Your task to perform on an android device: What's the news in Thailand? Image 0: 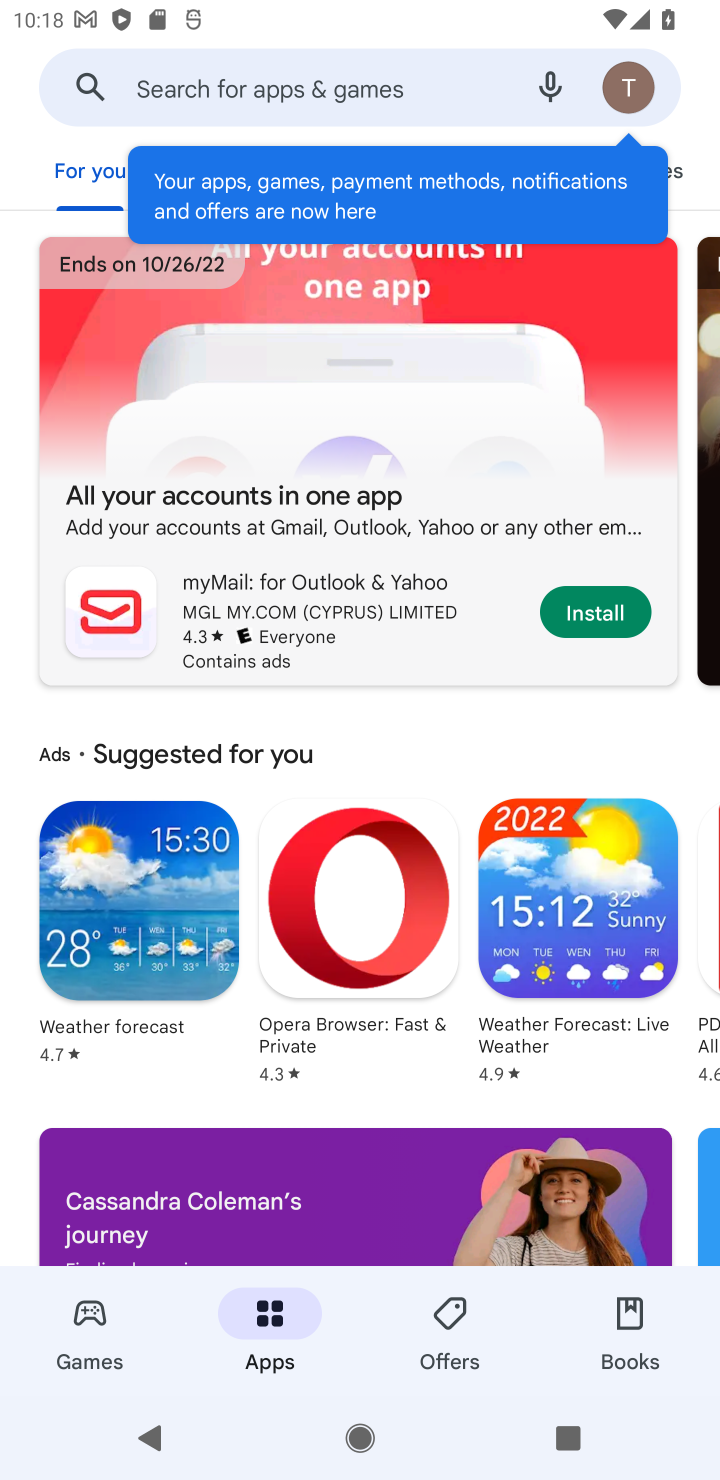
Step 0: press home button
Your task to perform on an android device: What's the news in Thailand? Image 1: 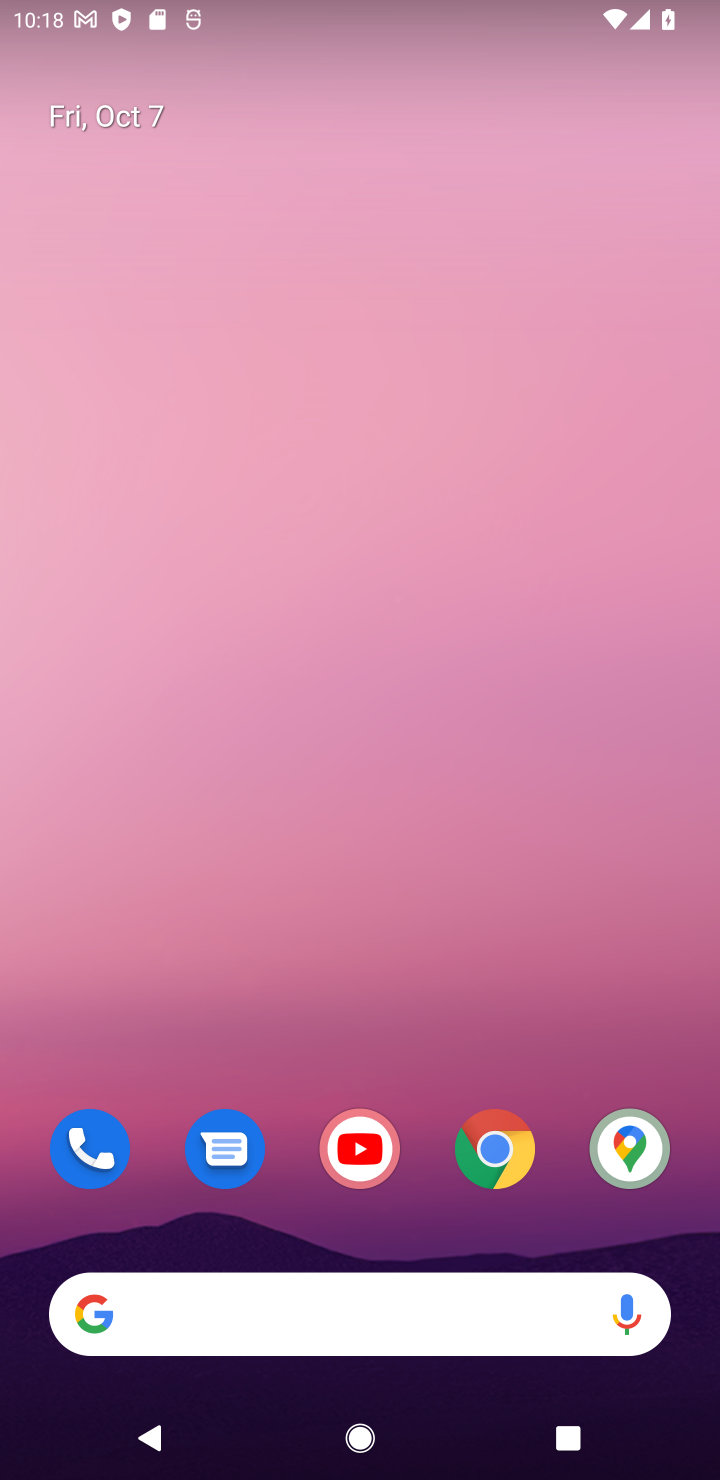
Step 1: click (376, 1330)
Your task to perform on an android device: What's the news in Thailand? Image 2: 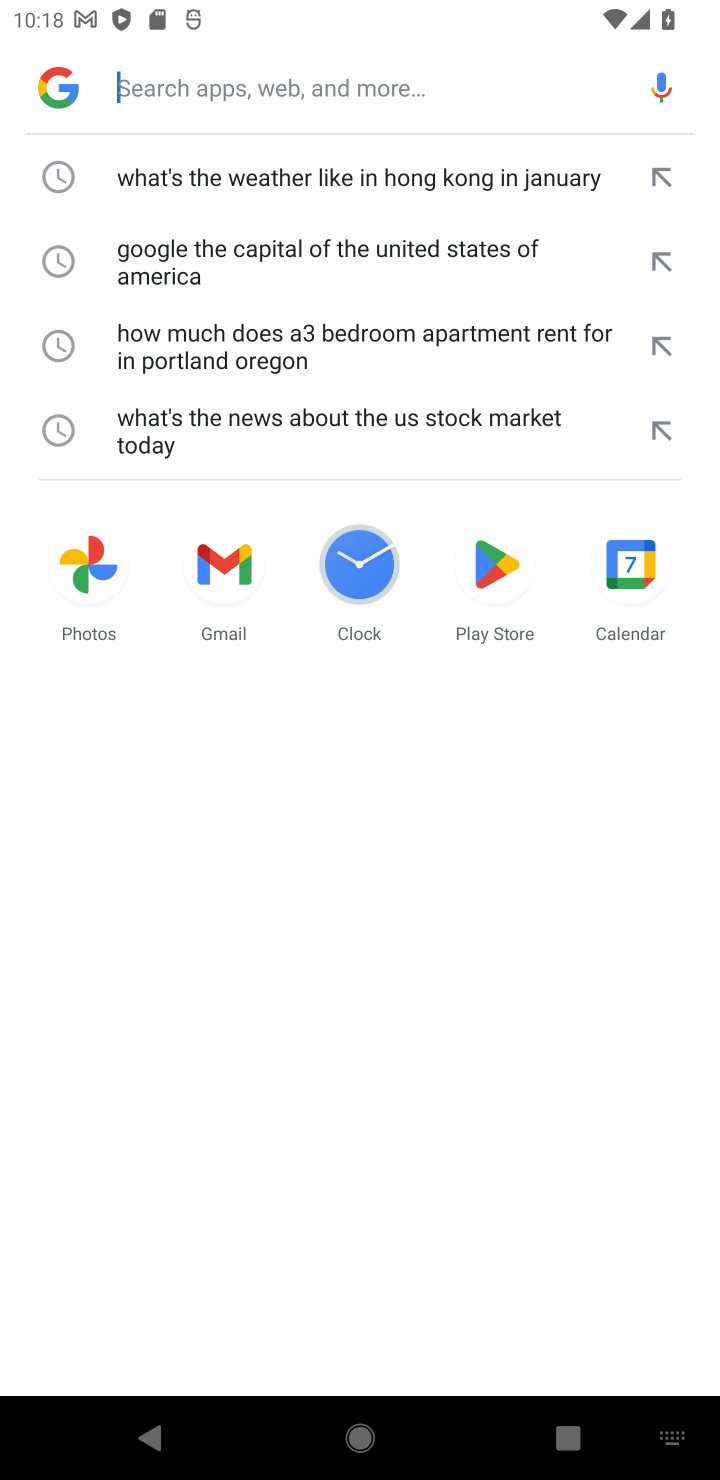
Step 2: type "What's the news in Thailand?"
Your task to perform on an android device: What's the news in Thailand? Image 3: 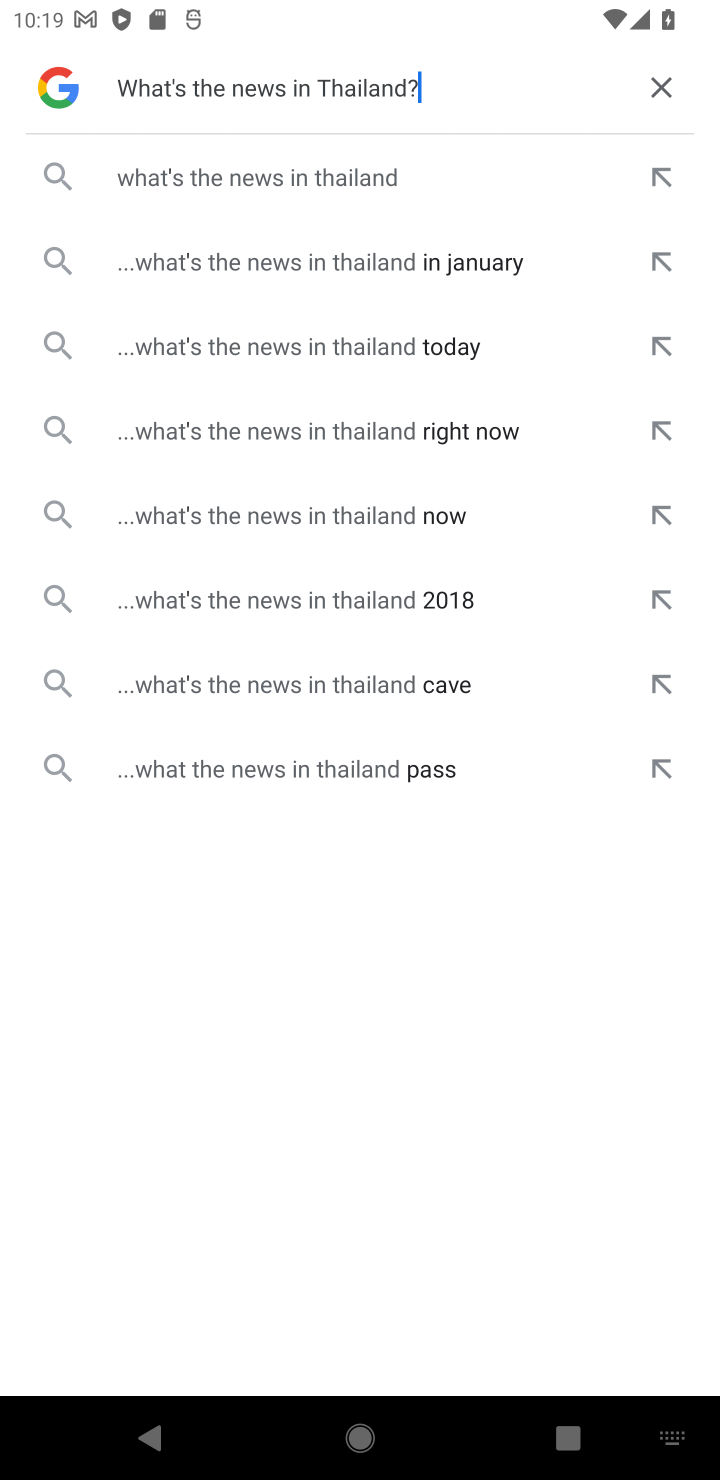
Step 3: click (374, 156)
Your task to perform on an android device: What's the news in Thailand? Image 4: 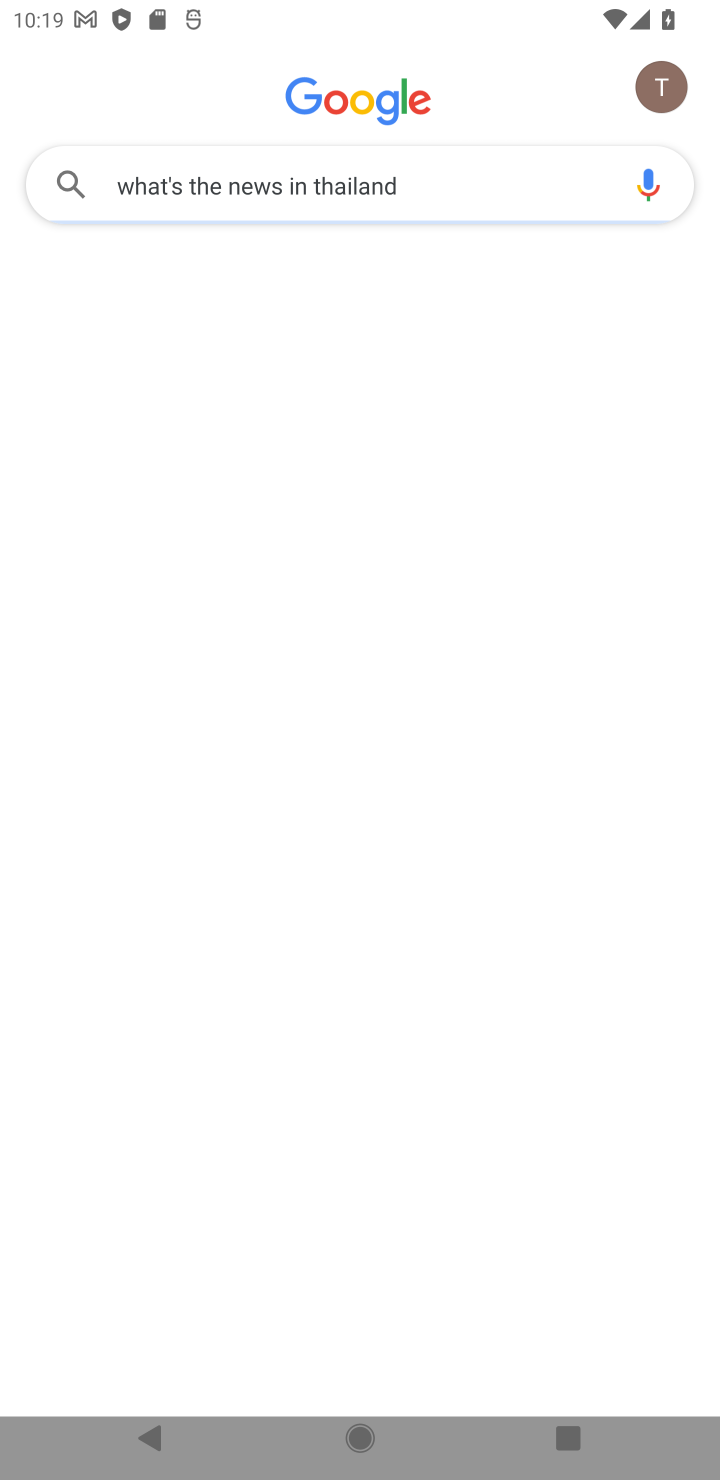
Step 4: task complete